Your task to perform on an android device: Open Google Chrome and open the bookmarks view Image 0: 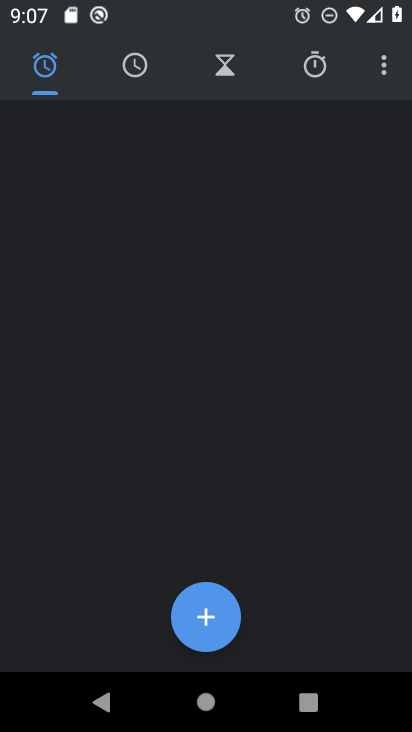
Step 0: drag from (402, 633) to (318, 206)
Your task to perform on an android device: Open Google Chrome and open the bookmarks view Image 1: 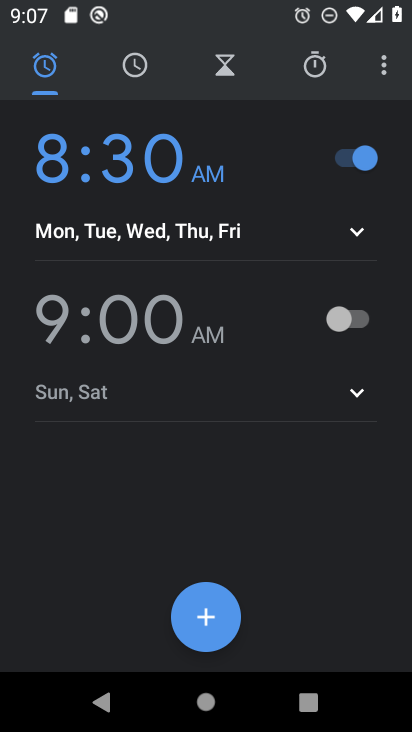
Step 1: press home button
Your task to perform on an android device: Open Google Chrome and open the bookmarks view Image 2: 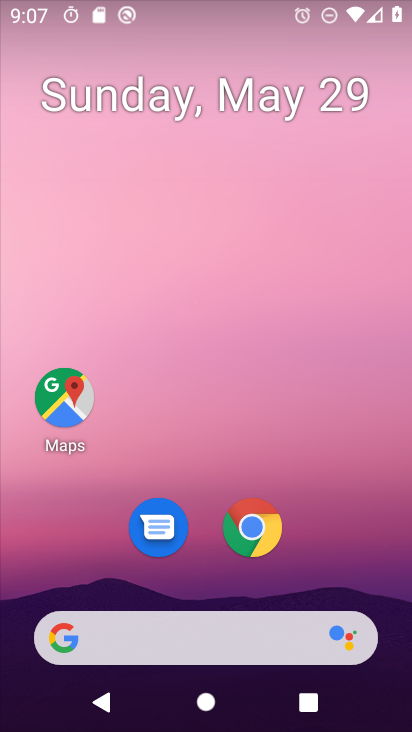
Step 2: drag from (396, 655) to (265, 4)
Your task to perform on an android device: Open Google Chrome and open the bookmarks view Image 3: 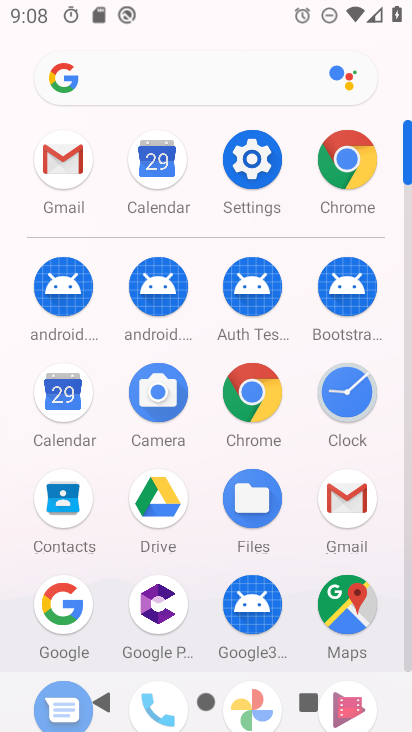
Step 3: click (370, 169)
Your task to perform on an android device: Open Google Chrome and open the bookmarks view Image 4: 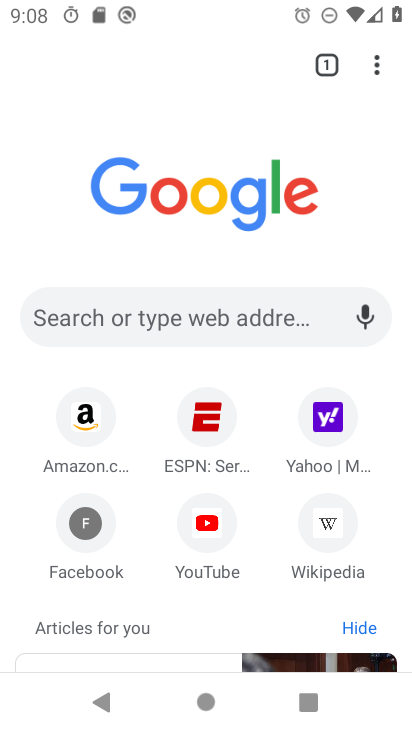
Step 4: click (373, 62)
Your task to perform on an android device: Open Google Chrome and open the bookmarks view Image 5: 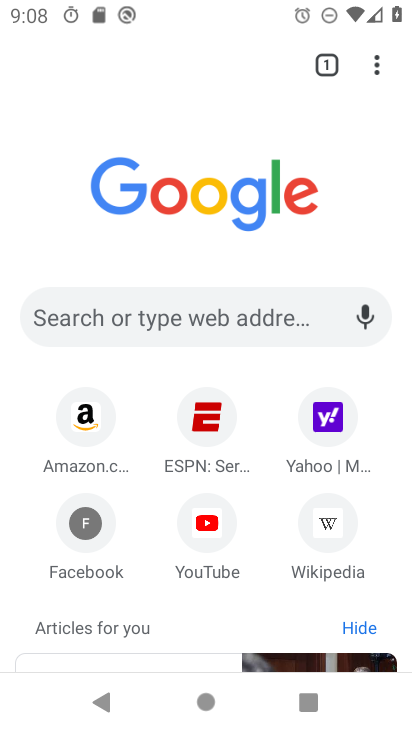
Step 5: click (377, 57)
Your task to perform on an android device: Open Google Chrome and open the bookmarks view Image 6: 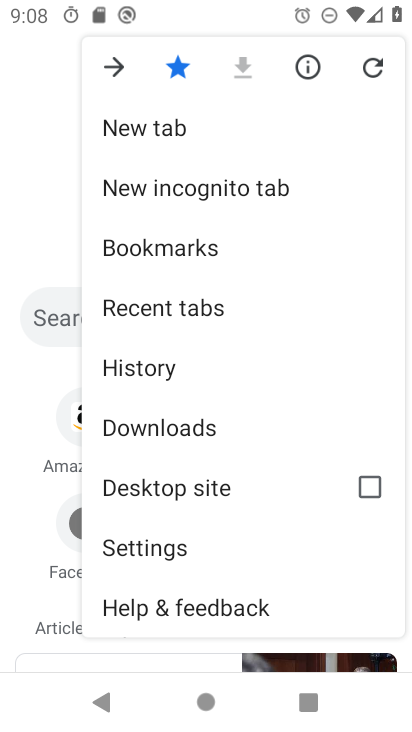
Step 6: click (245, 240)
Your task to perform on an android device: Open Google Chrome and open the bookmarks view Image 7: 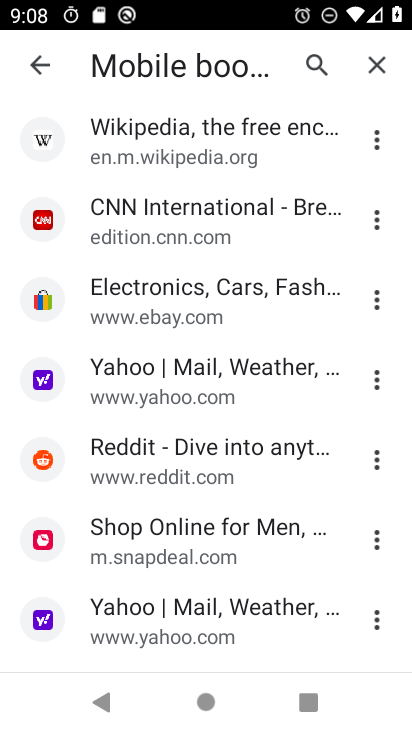
Step 7: task complete